Your task to perform on an android device: Turn on the flashlight Image 0: 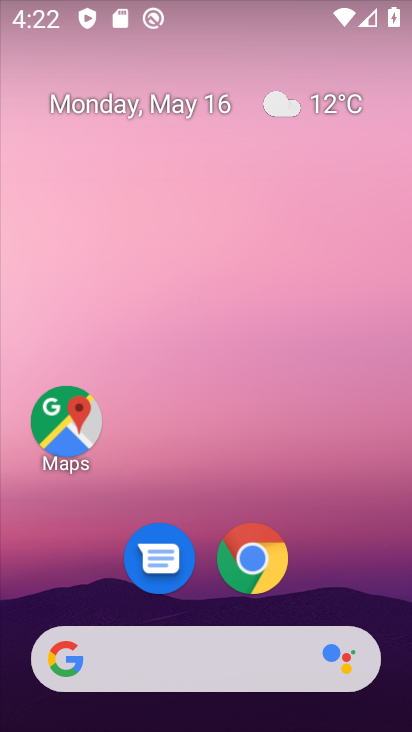
Step 0: drag from (319, 575) to (408, 421)
Your task to perform on an android device: Turn on the flashlight Image 1: 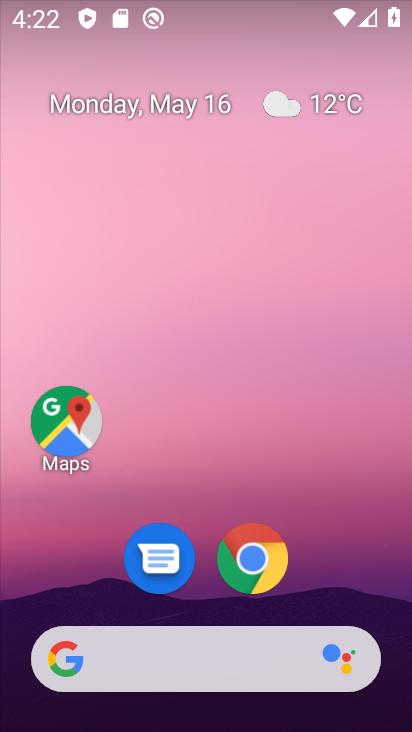
Step 1: drag from (368, 571) to (337, 231)
Your task to perform on an android device: Turn on the flashlight Image 2: 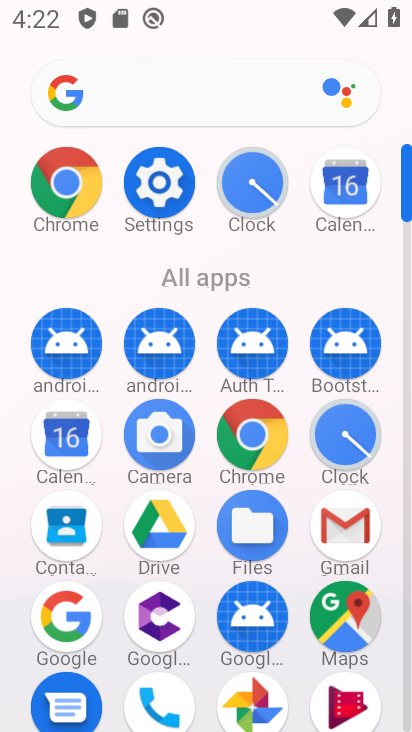
Step 2: click (142, 188)
Your task to perform on an android device: Turn on the flashlight Image 3: 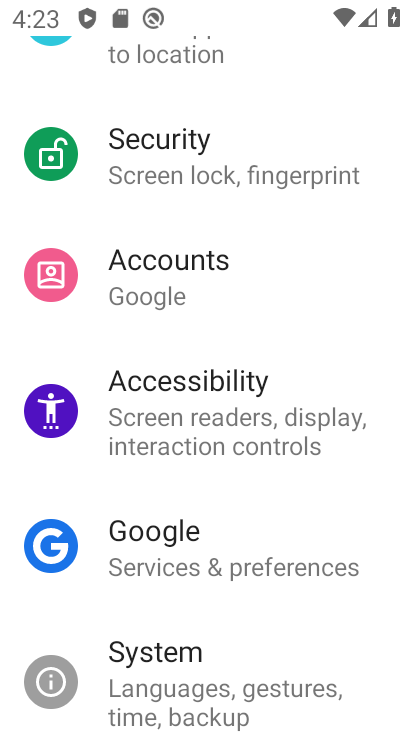
Step 3: drag from (287, 163) to (242, 596)
Your task to perform on an android device: Turn on the flashlight Image 4: 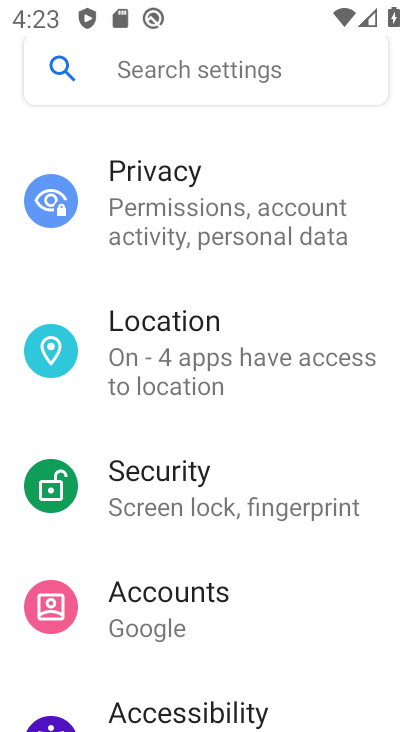
Step 4: click (232, 105)
Your task to perform on an android device: Turn on the flashlight Image 5: 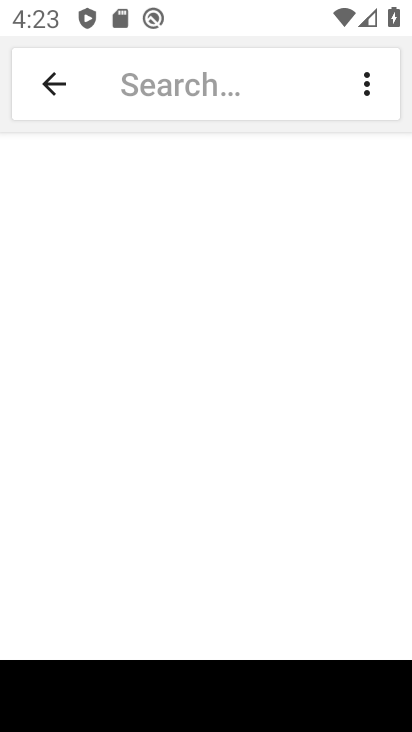
Step 5: type "flashlight"
Your task to perform on an android device: Turn on the flashlight Image 6: 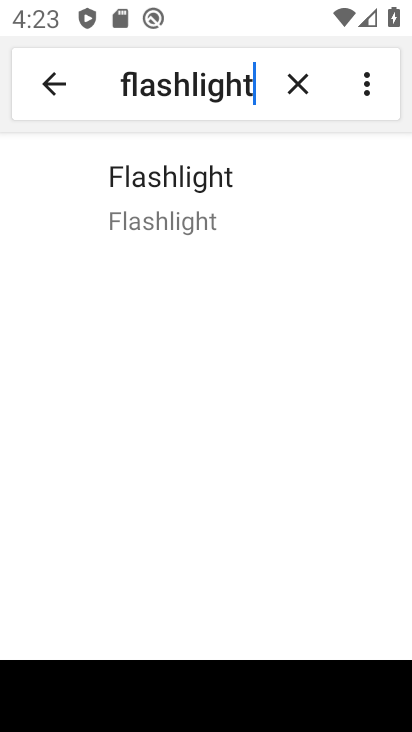
Step 6: click (224, 204)
Your task to perform on an android device: Turn on the flashlight Image 7: 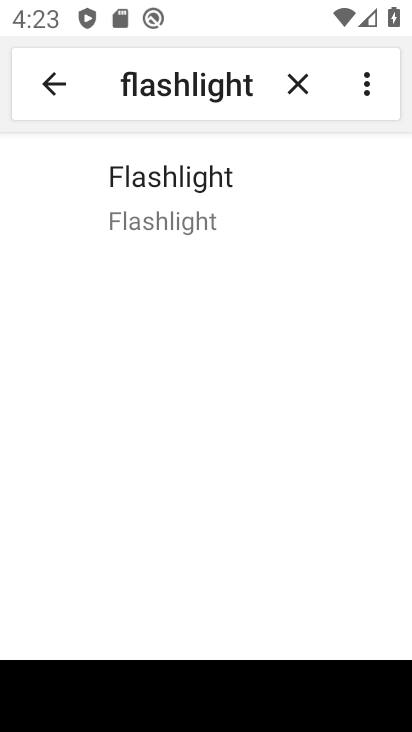
Step 7: task complete